Your task to perform on an android device: turn off smart reply in the gmail app Image 0: 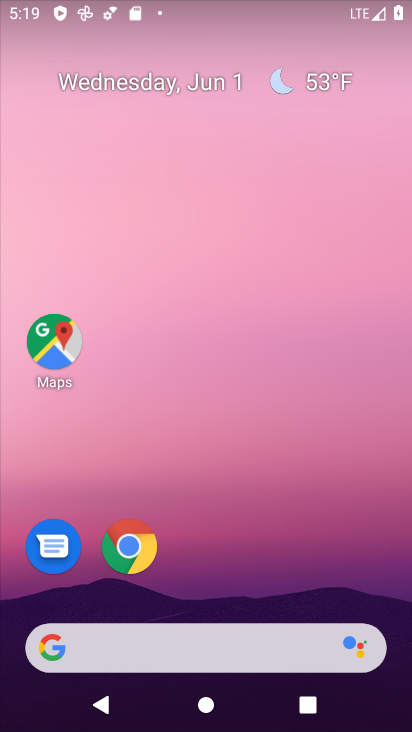
Step 0: drag from (269, 517) to (230, 84)
Your task to perform on an android device: turn off smart reply in the gmail app Image 1: 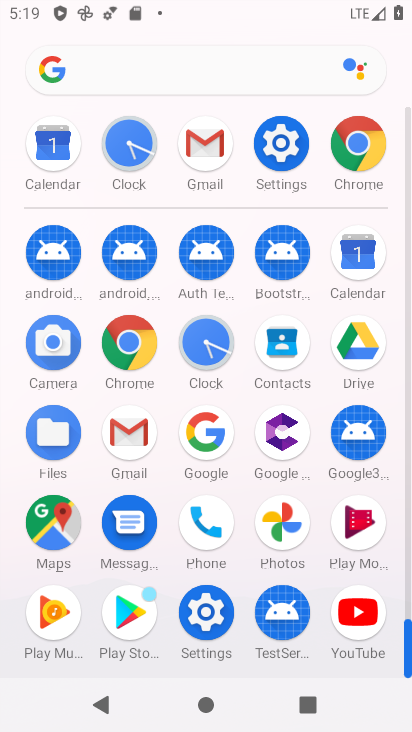
Step 1: drag from (15, 564) to (0, 215)
Your task to perform on an android device: turn off smart reply in the gmail app Image 2: 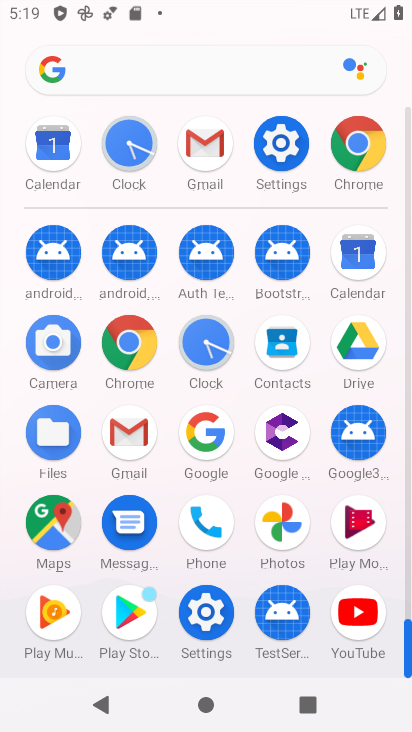
Step 2: drag from (7, 505) to (20, 229)
Your task to perform on an android device: turn off smart reply in the gmail app Image 3: 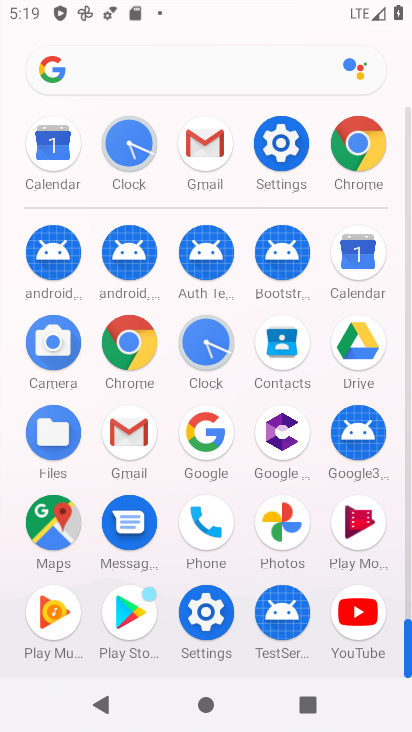
Step 3: drag from (3, 572) to (20, 296)
Your task to perform on an android device: turn off smart reply in the gmail app Image 4: 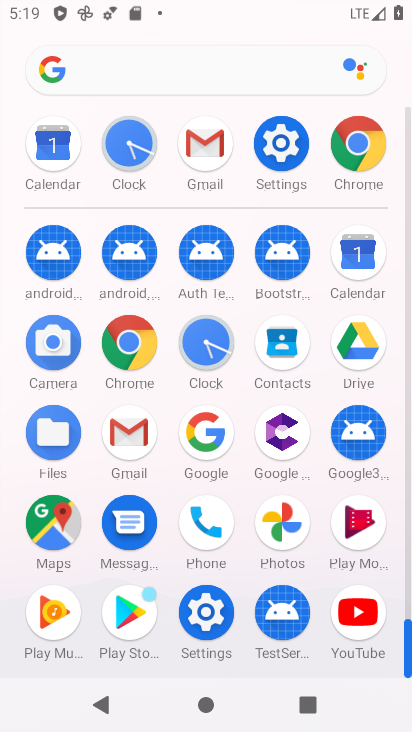
Step 4: click (128, 429)
Your task to perform on an android device: turn off smart reply in the gmail app Image 5: 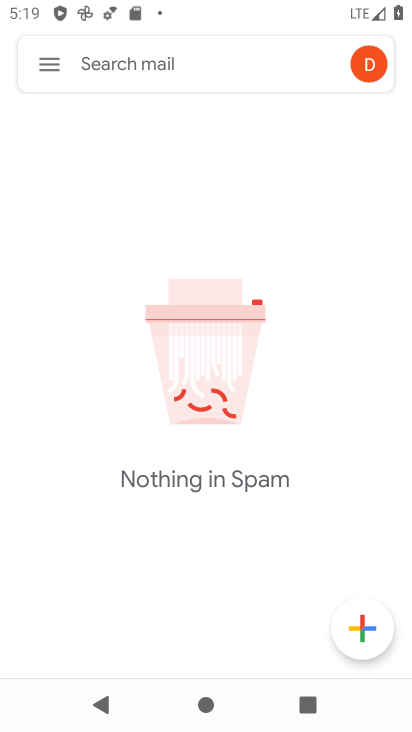
Step 5: click (50, 63)
Your task to perform on an android device: turn off smart reply in the gmail app Image 6: 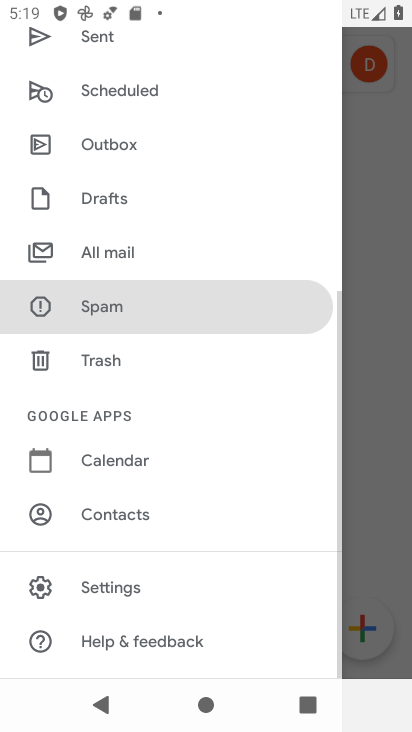
Step 6: drag from (196, 522) to (195, 140)
Your task to perform on an android device: turn off smart reply in the gmail app Image 7: 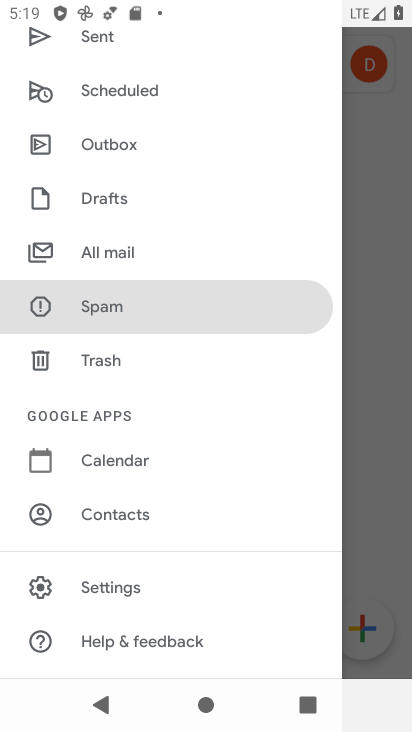
Step 7: click (110, 582)
Your task to perform on an android device: turn off smart reply in the gmail app Image 8: 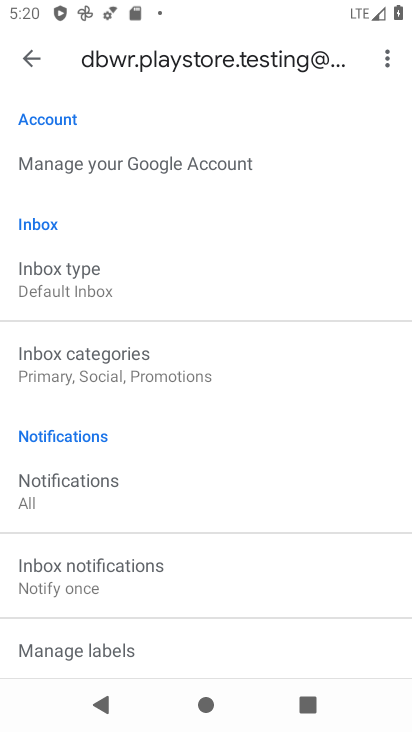
Step 8: drag from (211, 572) to (242, 164)
Your task to perform on an android device: turn off smart reply in the gmail app Image 9: 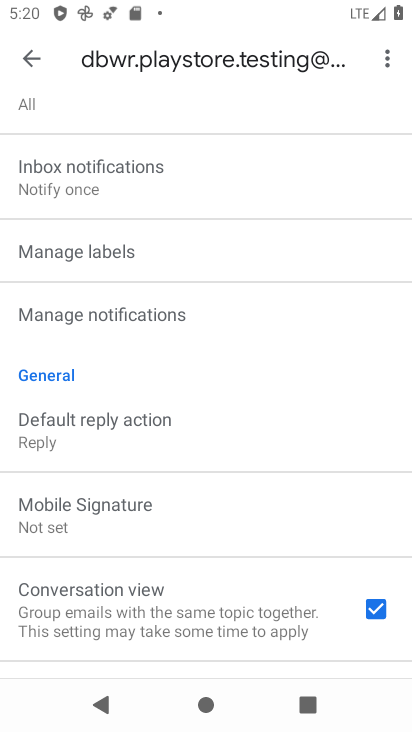
Step 9: drag from (221, 532) to (261, 177)
Your task to perform on an android device: turn off smart reply in the gmail app Image 10: 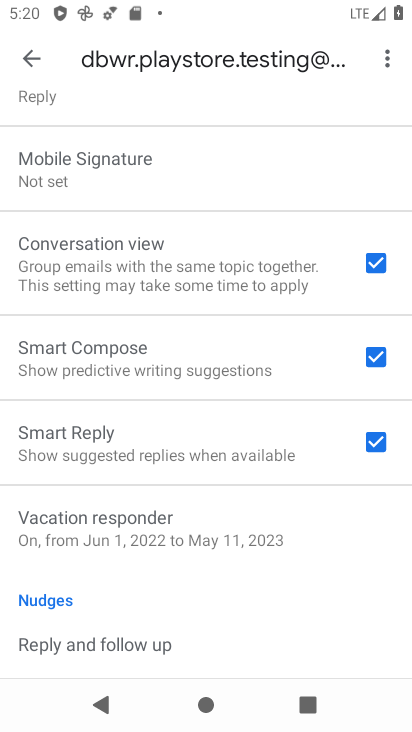
Step 10: drag from (213, 551) to (245, 121)
Your task to perform on an android device: turn off smart reply in the gmail app Image 11: 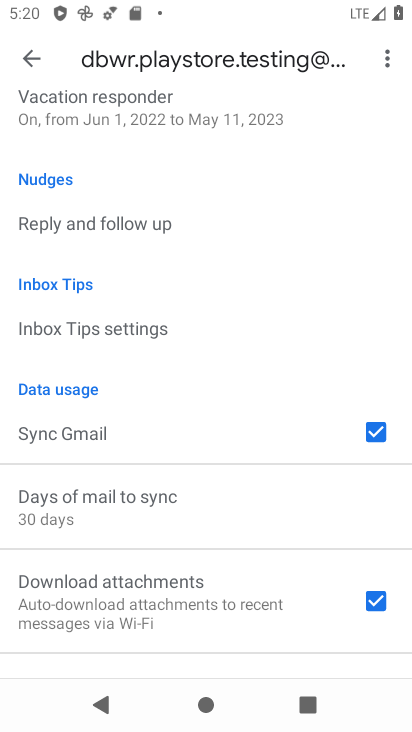
Step 11: drag from (239, 516) to (248, 115)
Your task to perform on an android device: turn off smart reply in the gmail app Image 12: 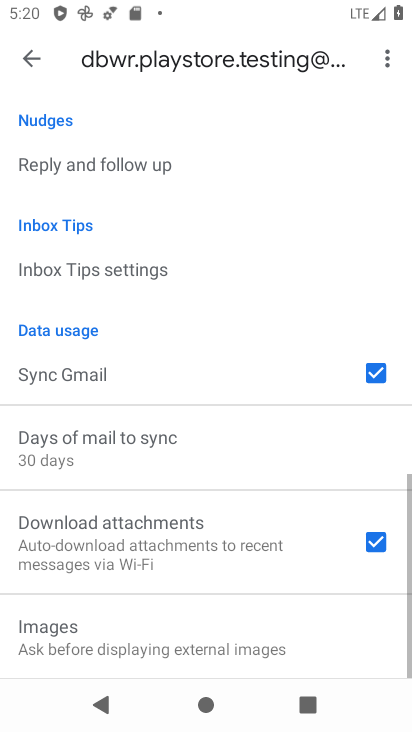
Step 12: drag from (207, 547) to (219, 191)
Your task to perform on an android device: turn off smart reply in the gmail app Image 13: 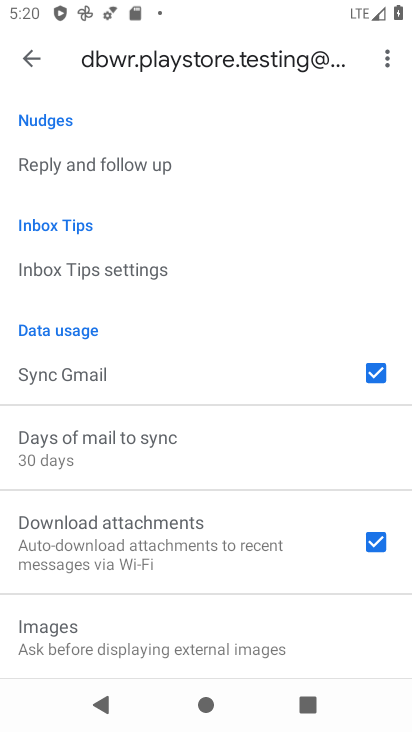
Step 13: drag from (219, 192) to (219, 569)
Your task to perform on an android device: turn off smart reply in the gmail app Image 14: 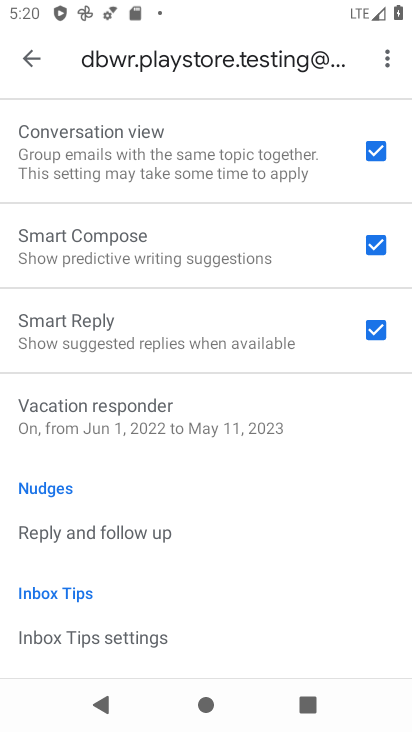
Step 14: click (376, 327)
Your task to perform on an android device: turn off smart reply in the gmail app Image 15: 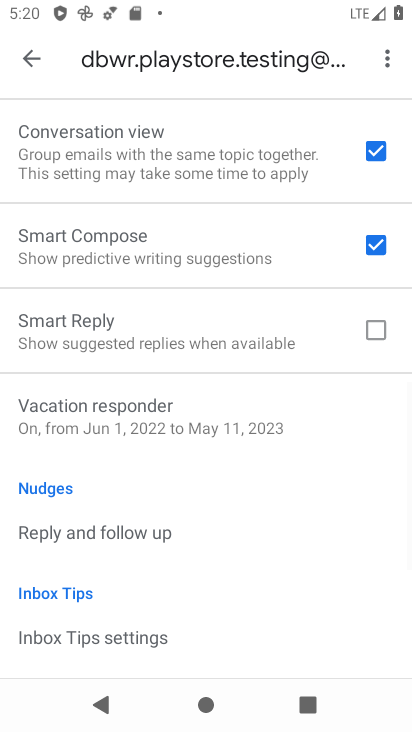
Step 15: task complete